Your task to perform on an android device: allow notifications from all sites in the chrome app Image 0: 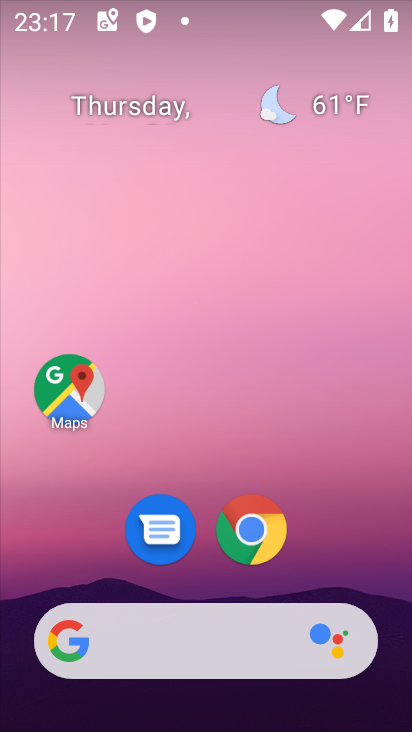
Step 0: drag from (353, 538) to (326, 48)
Your task to perform on an android device: allow notifications from all sites in the chrome app Image 1: 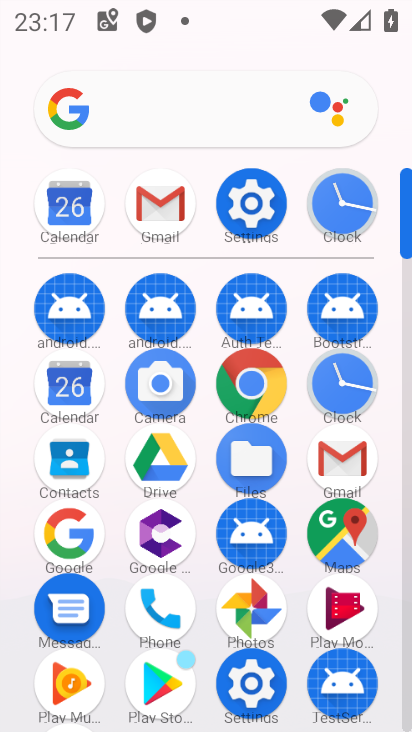
Step 1: click (263, 376)
Your task to perform on an android device: allow notifications from all sites in the chrome app Image 2: 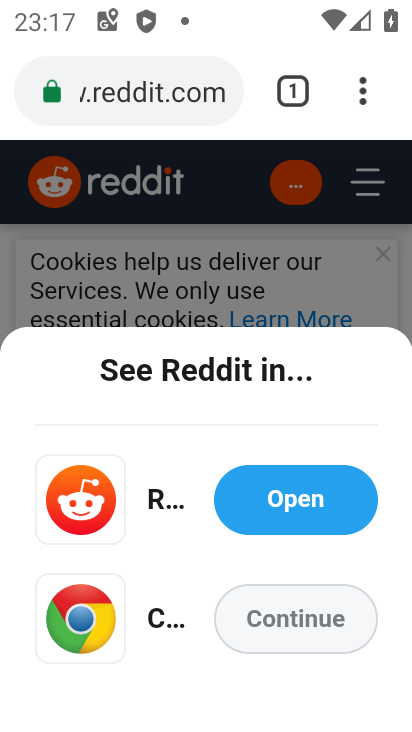
Step 2: click (315, 643)
Your task to perform on an android device: allow notifications from all sites in the chrome app Image 3: 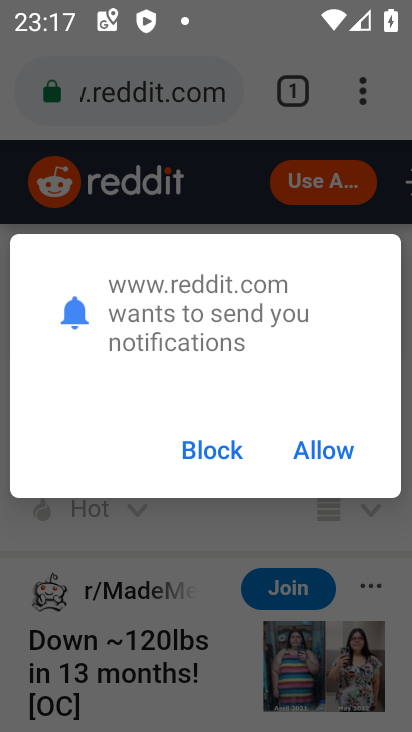
Step 3: click (307, 437)
Your task to perform on an android device: allow notifications from all sites in the chrome app Image 4: 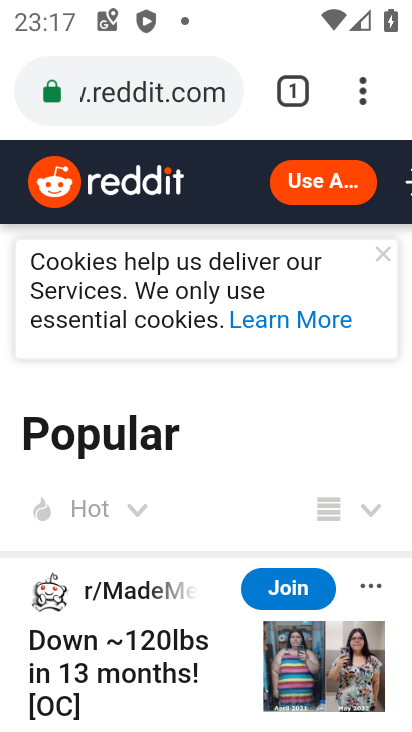
Step 4: click (364, 84)
Your task to perform on an android device: allow notifications from all sites in the chrome app Image 5: 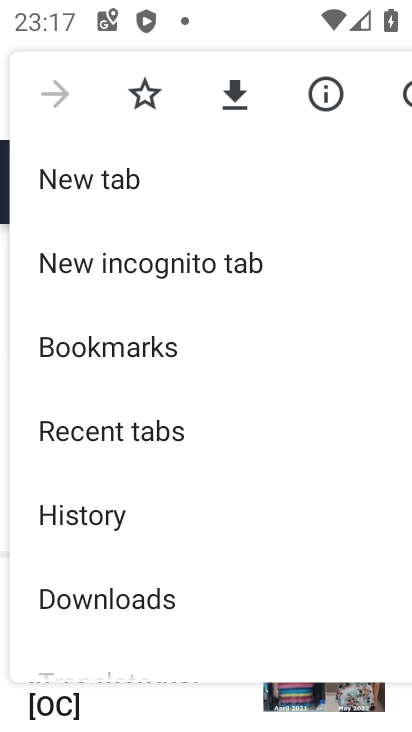
Step 5: drag from (183, 536) to (236, 205)
Your task to perform on an android device: allow notifications from all sites in the chrome app Image 6: 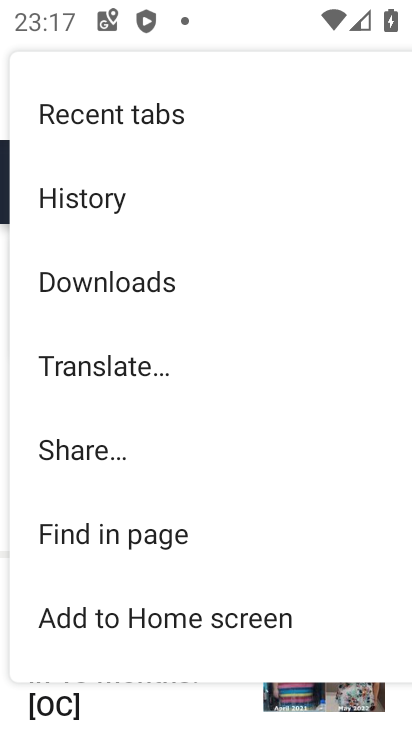
Step 6: drag from (134, 607) to (164, 205)
Your task to perform on an android device: allow notifications from all sites in the chrome app Image 7: 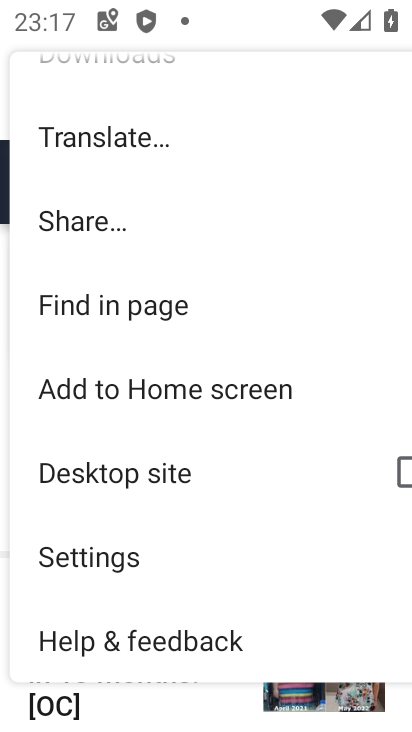
Step 7: click (112, 563)
Your task to perform on an android device: allow notifications from all sites in the chrome app Image 8: 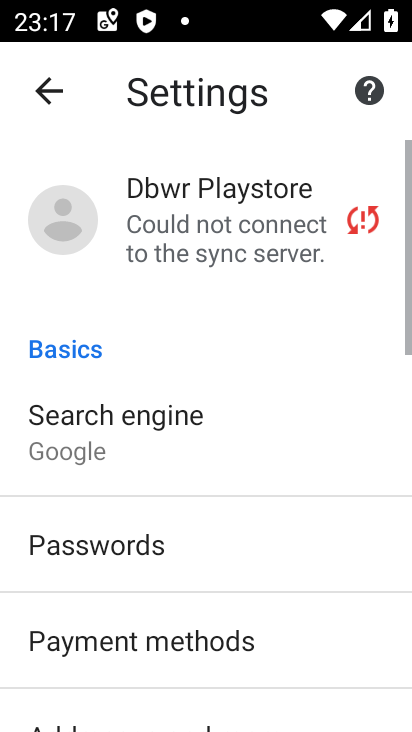
Step 8: drag from (177, 600) to (221, 21)
Your task to perform on an android device: allow notifications from all sites in the chrome app Image 9: 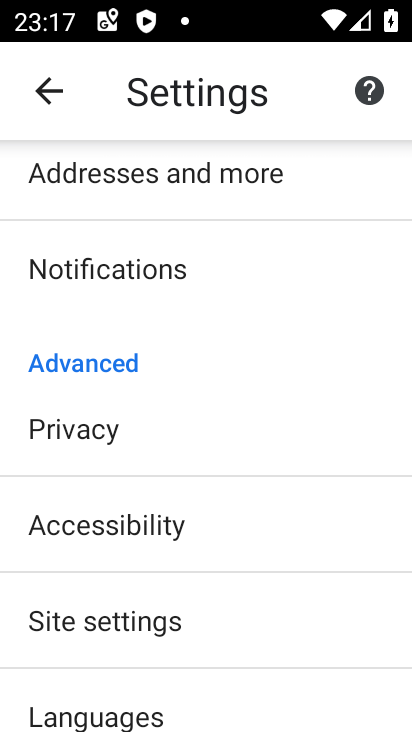
Step 9: click (125, 636)
Your task to perform on an android device: allow notifications from all sites in the chrome app Image 10: 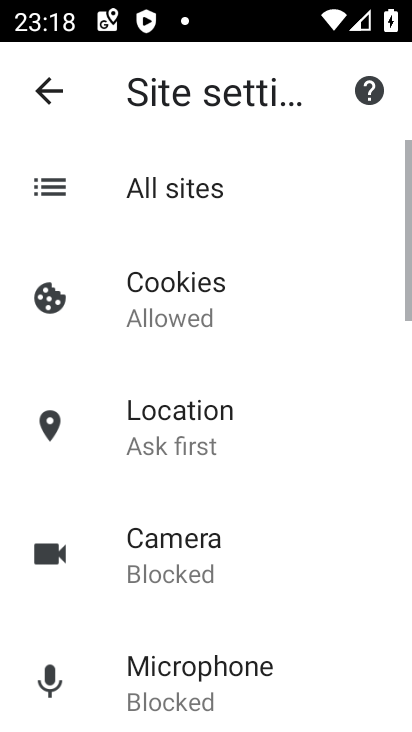
Step 10: task complete